Your task to perform on an android device: Add "asus zenbook" to the cart on amazon, then select checkout. Image 0: 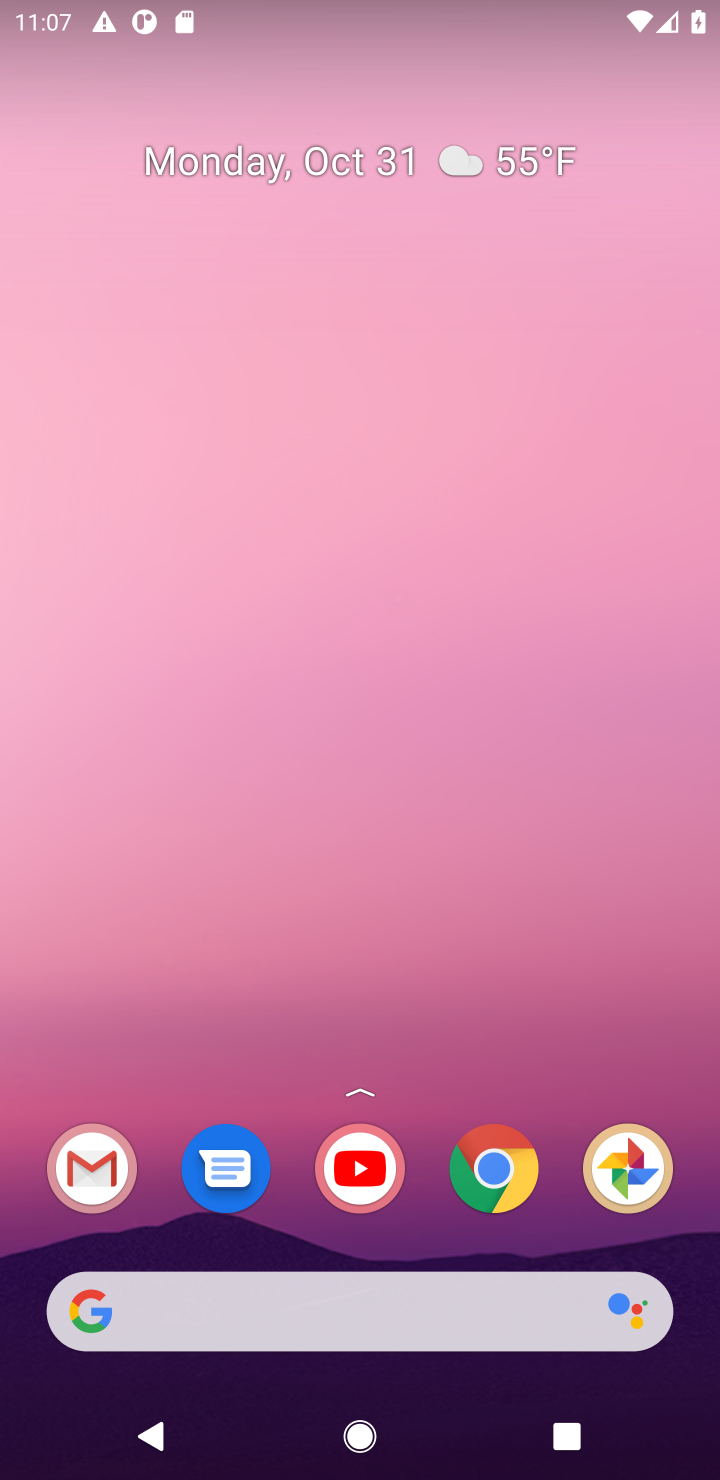
Step 0: click (477, 1171)
Your task to perform on an android device: Add "asus zenbook" to the cart on amazon, then select checkout. Image 1: 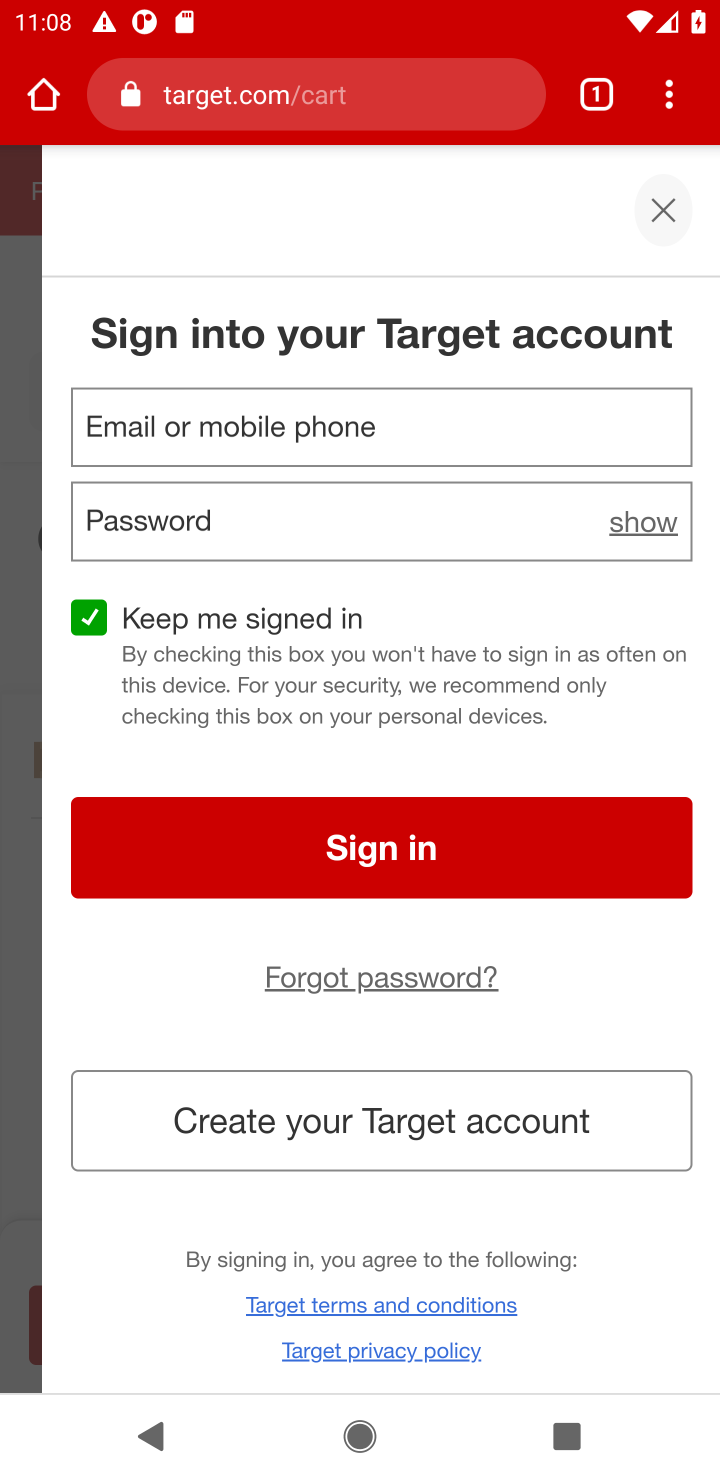
Step 1: click (298, 95)
Your task to perform on an android device: Add "asus zenbook" to the cart on amazon, then select checkout. Image 2: 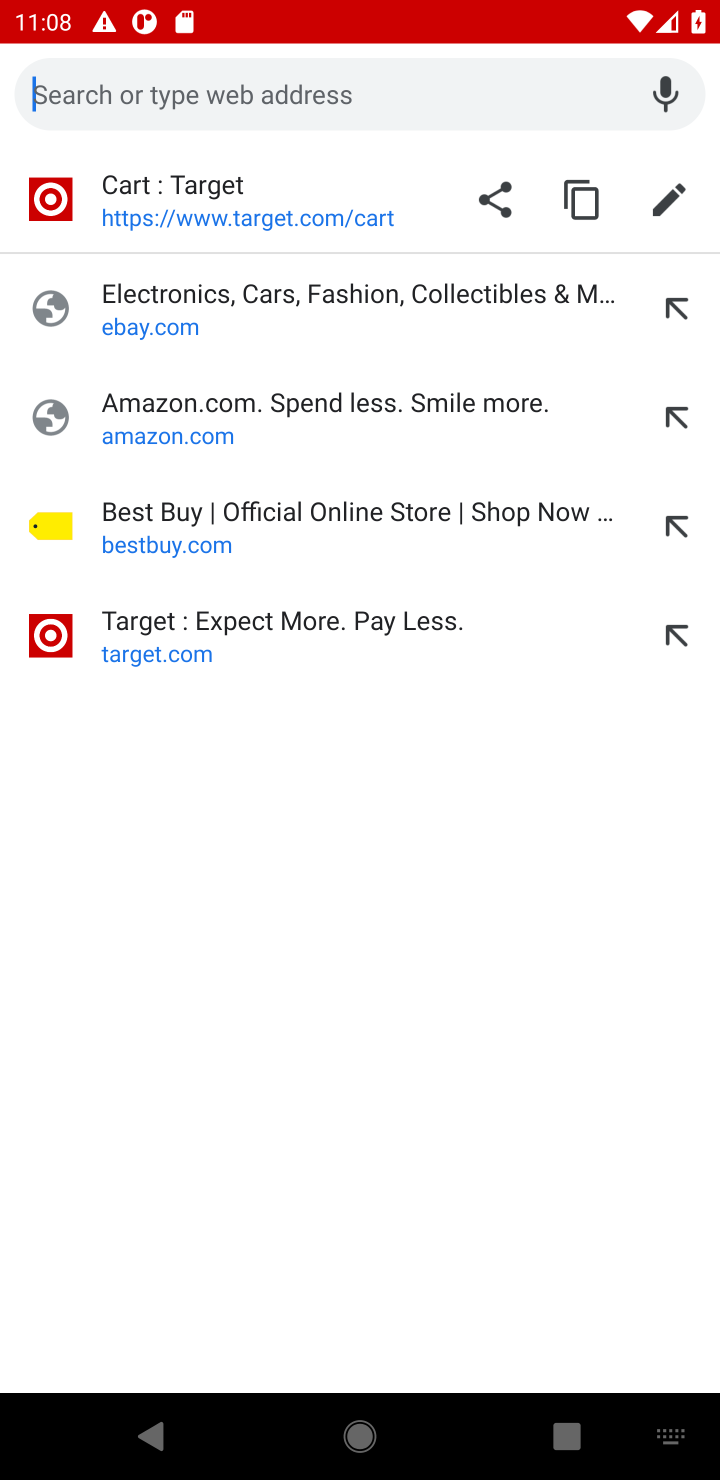
Step 2: type "amazon"
Your task to perform on an android device: Add "asus zenbook" to the cart on amazon, then select checkout. Image 3: 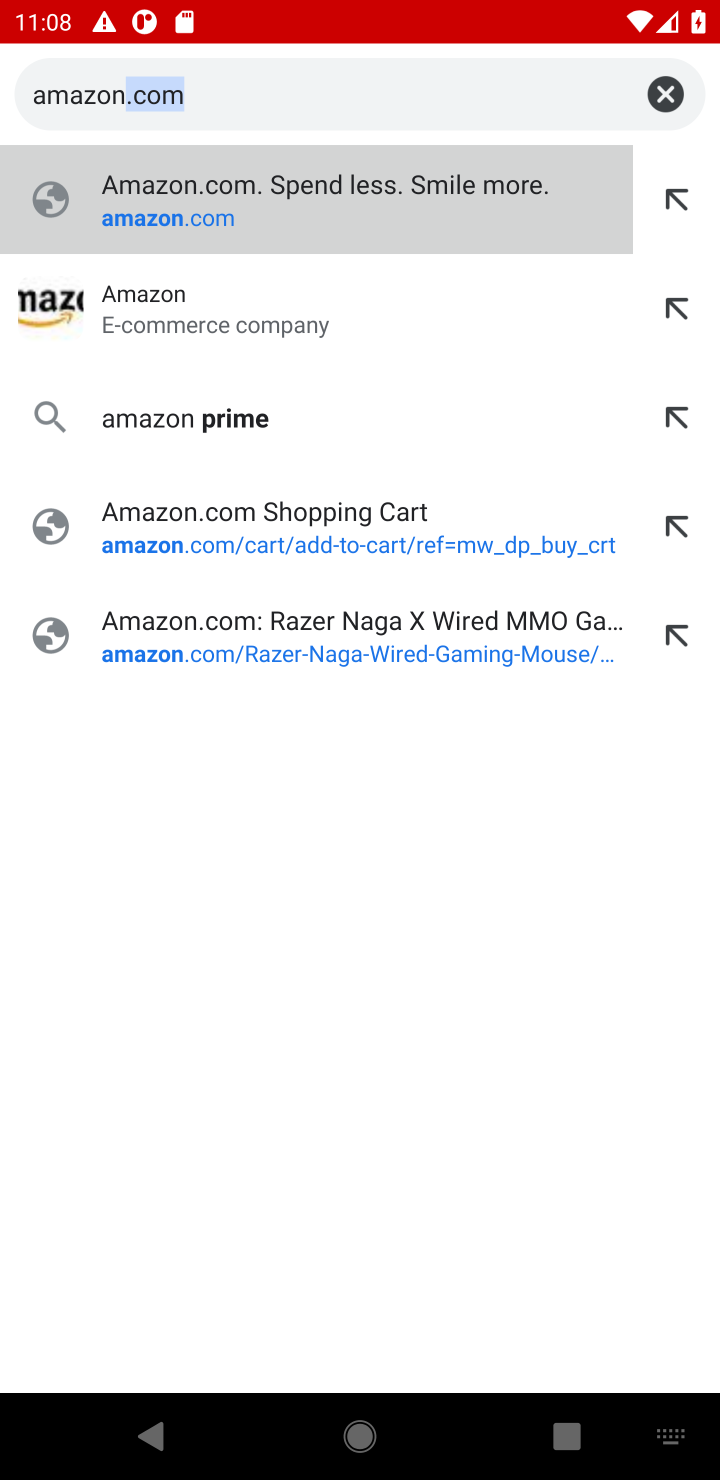
Step 3: press enter
Your task to perform on an android device: Add "asus zenbook" to the cart on amazon, then select checkout. Image 4: 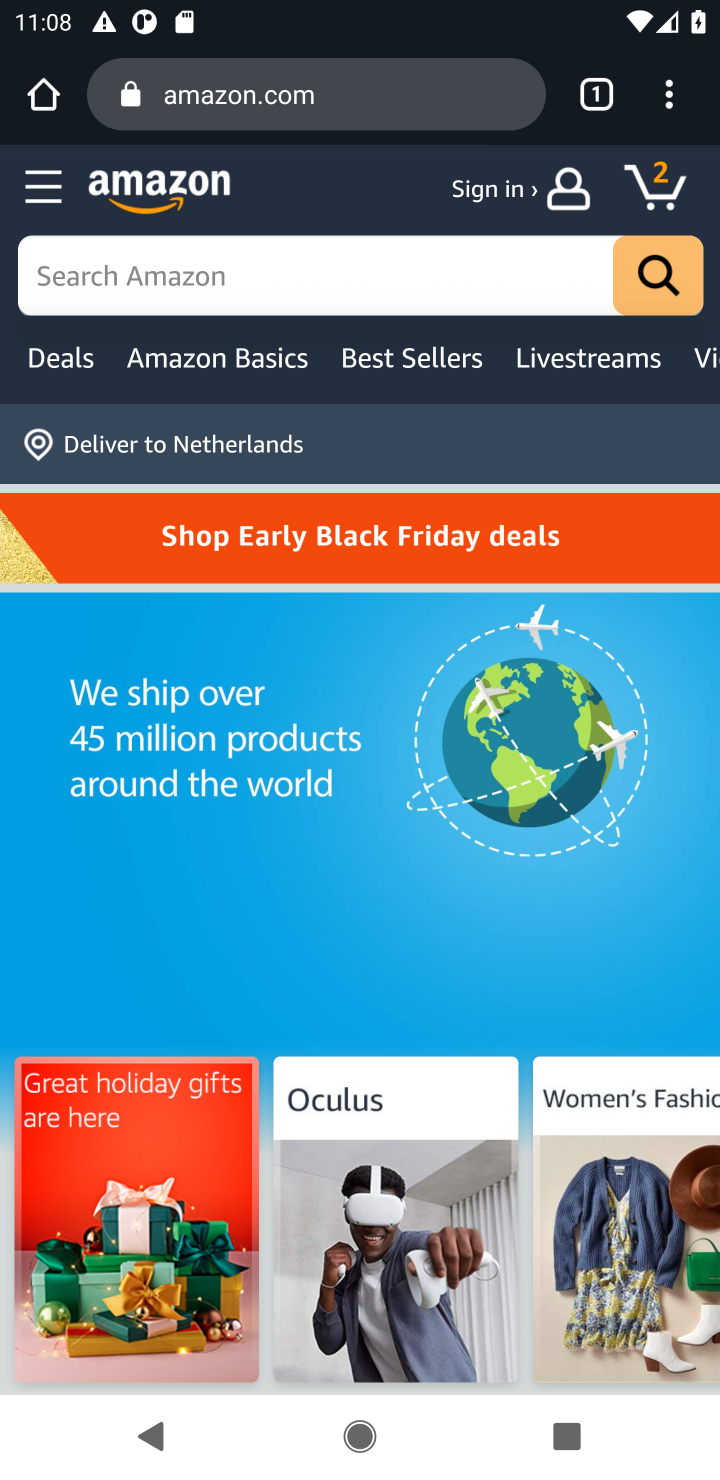
Step 4: click (203, 286)
Your task to perform on an android device: Add "asus zenbook" to the cart on amazon, then select checkout. Image 5: 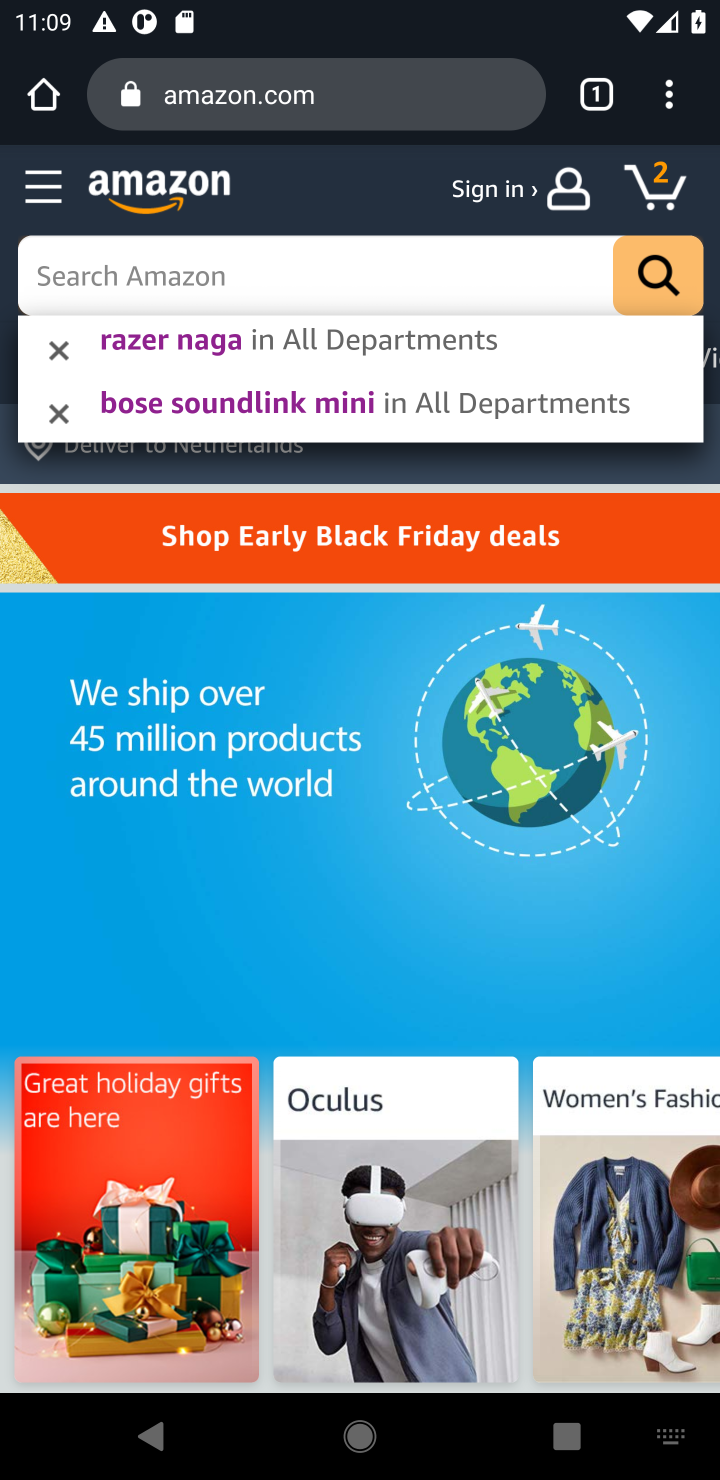
Step 5: type "asus zenbook"
Your task to perform on an android device: Add "asus zenbook" to the cart on amazon, then select checkout. Image 6: 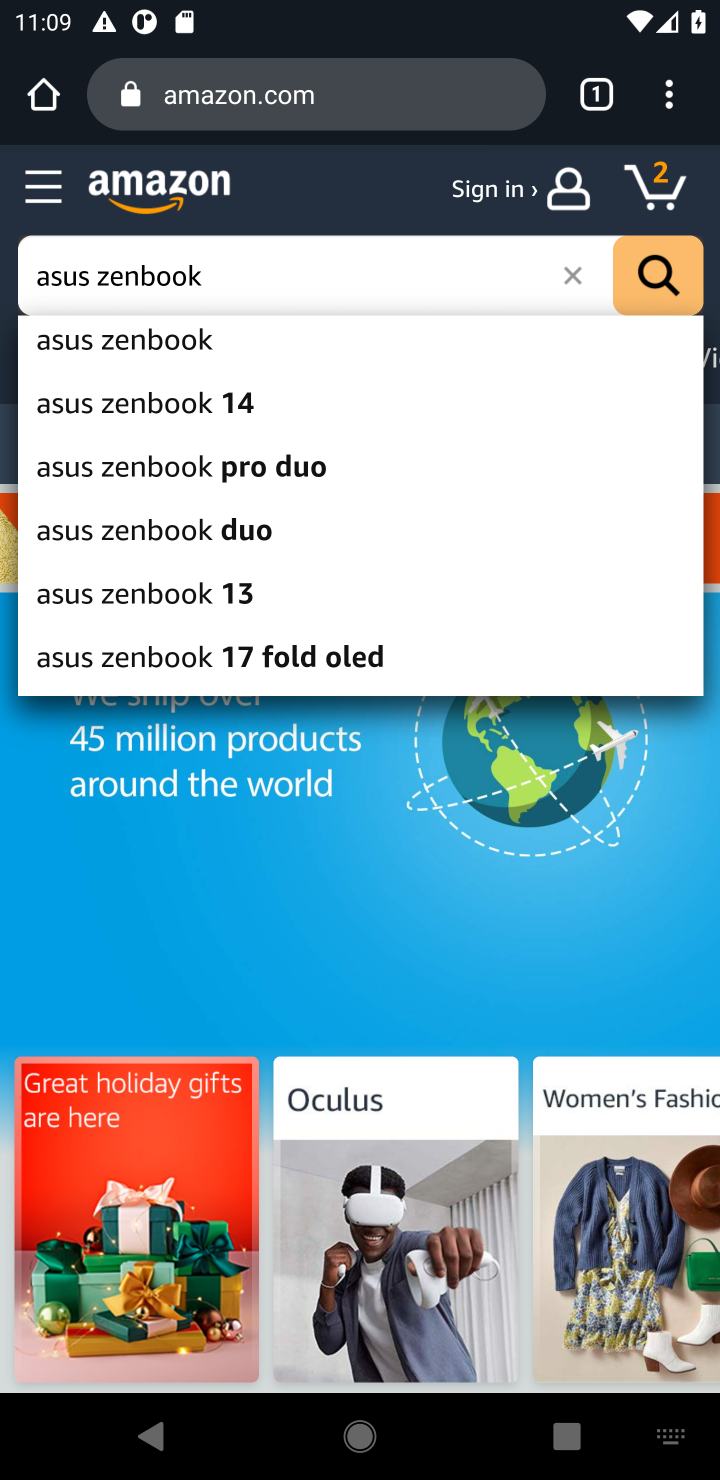
Step 6: click (101, 353)
Your task to perform on an android device: Add "asus zenbook" to the cart on amazon, then select checkout. Image 7: 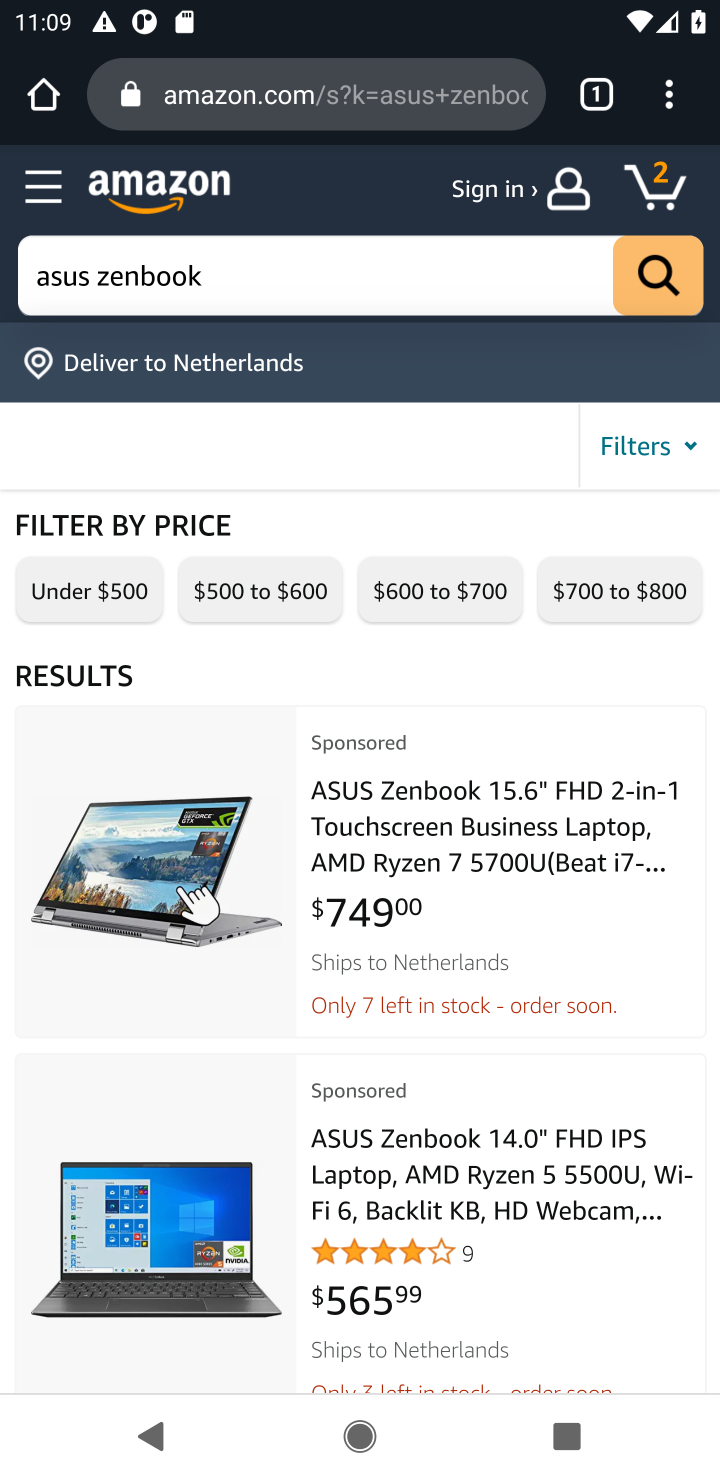
Step 7: drag from (559, 1039) to (536, 976)
Your task to perform on an android device: Add "asus zenbook" to the cart on amazon, then select checkout. Image 8: 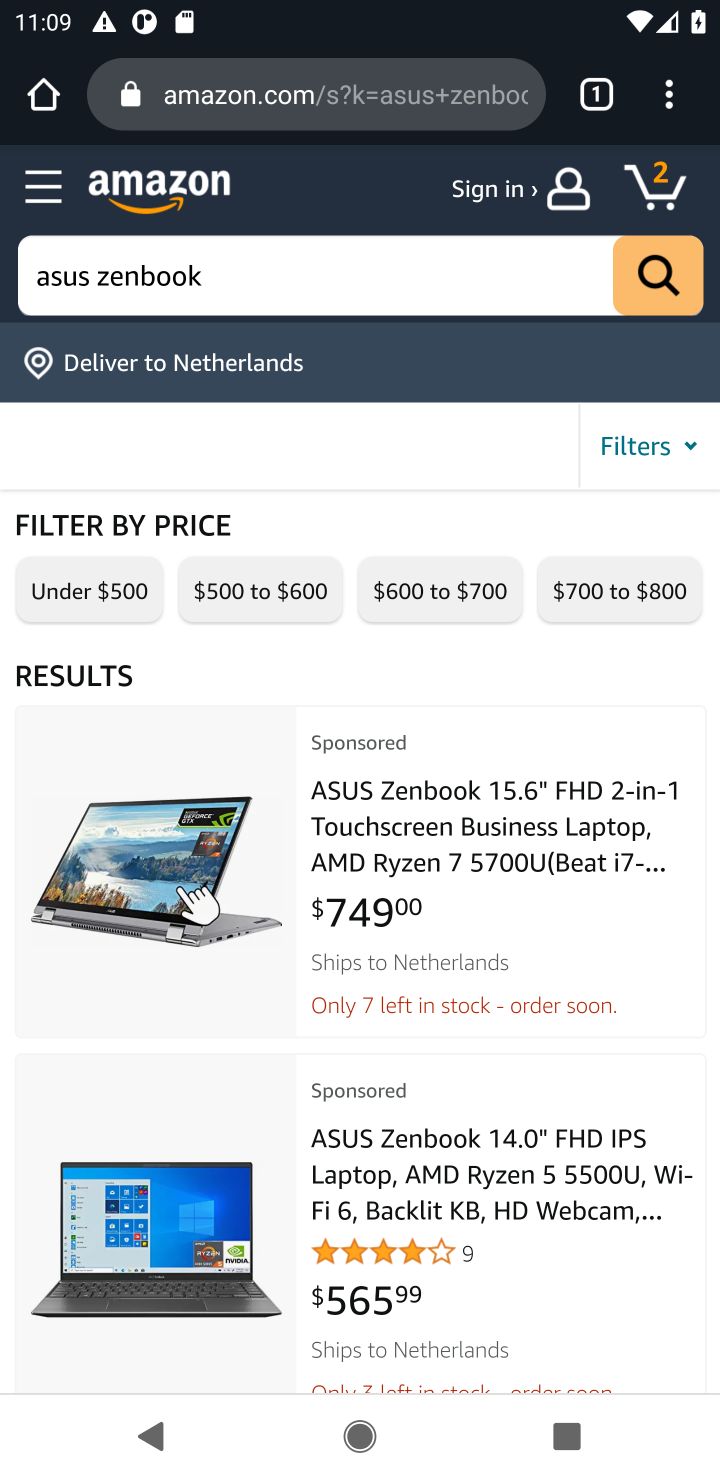
Step 8: click (384, 776)
Your task to perform on an android device: Add "asus zenbook" to the cart on amazon, then select checkout. Image 9: 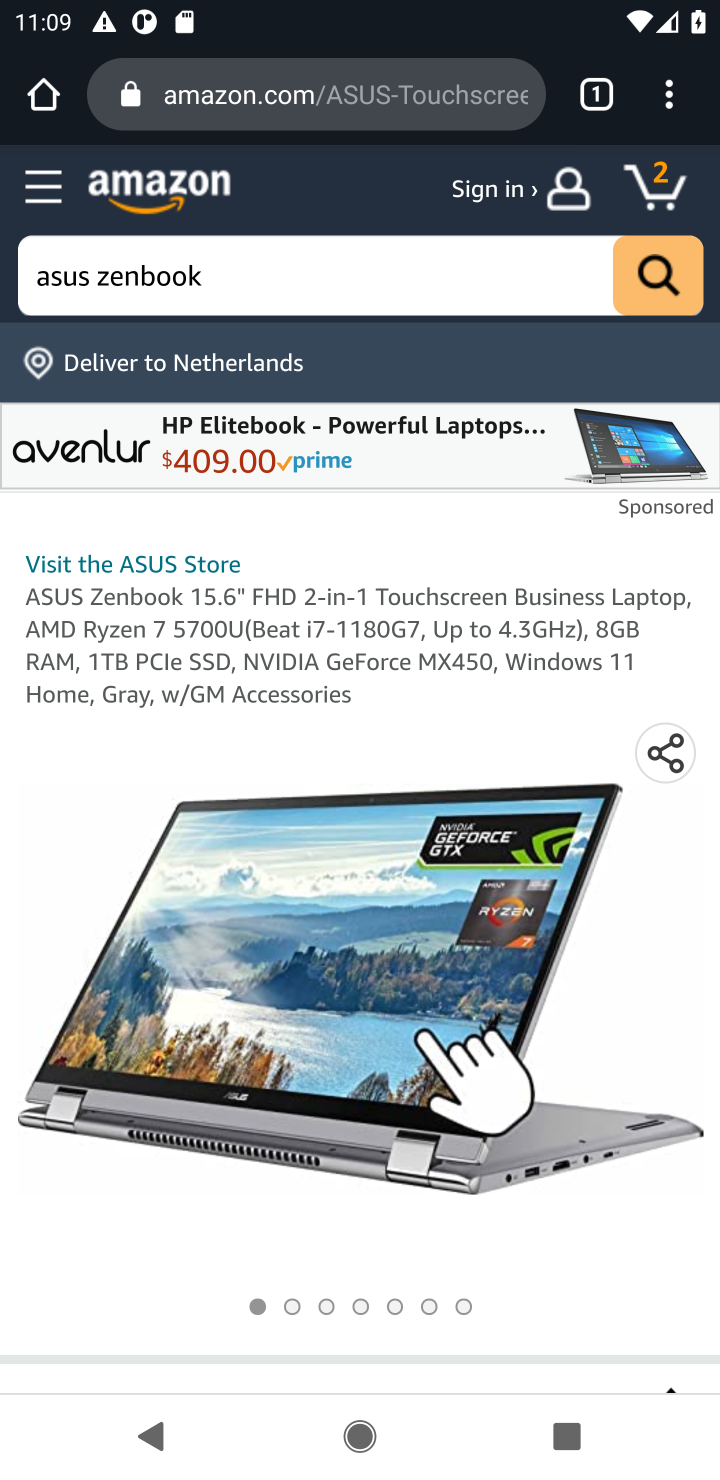
Step 9: drag from (599, 1240) to (495, 272)
Your task to perform on an android device: Add "asus zenbook" to the cart on amazon, then select checkout. Image 10: 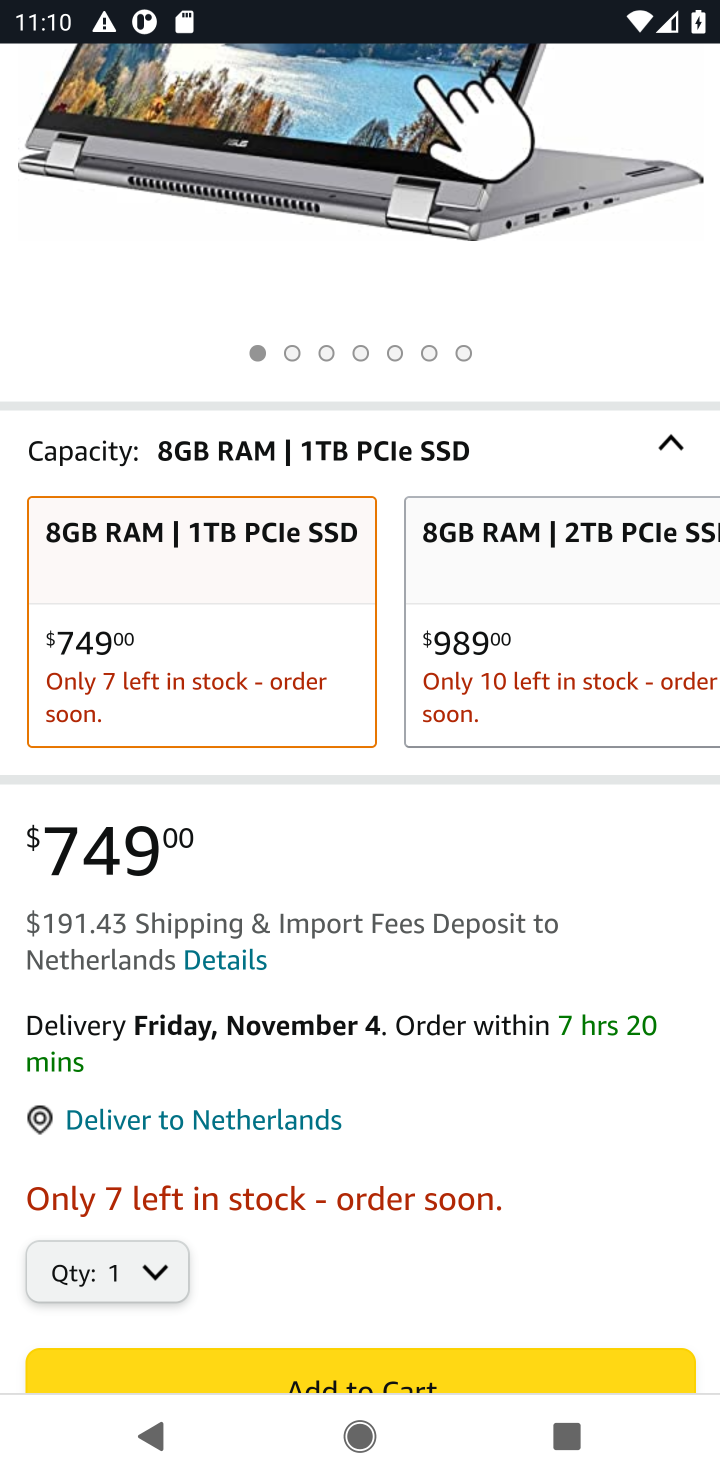
Step 10: drag from (429, 1119) to (413, 835)
Your task to perform on an android device: Add "asus zenbook" to the cart on amazon, then select checkout. Image 11: 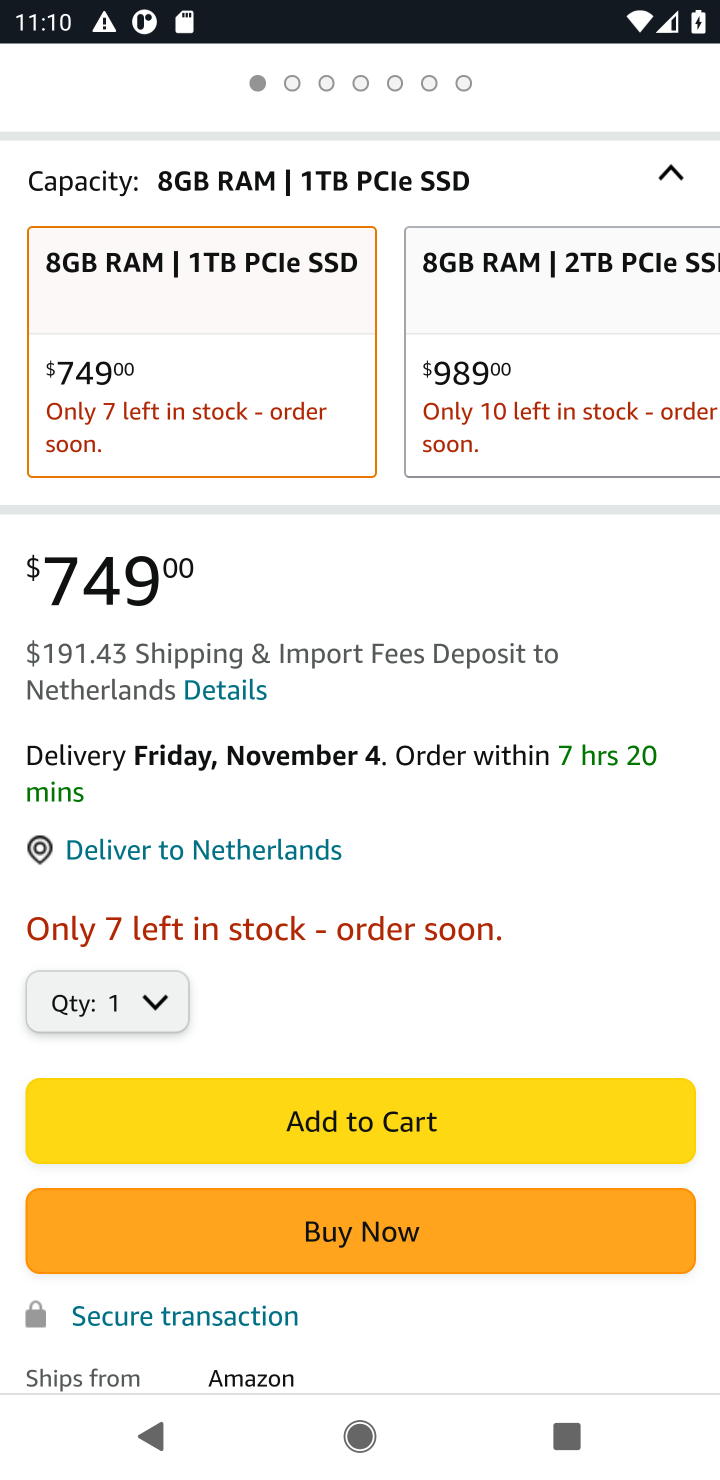
Step 11: click (314, 1117)
Your task to perform on an android device: Add "asus zenbook" to the cart on amazon, then select checkout. Image 12: 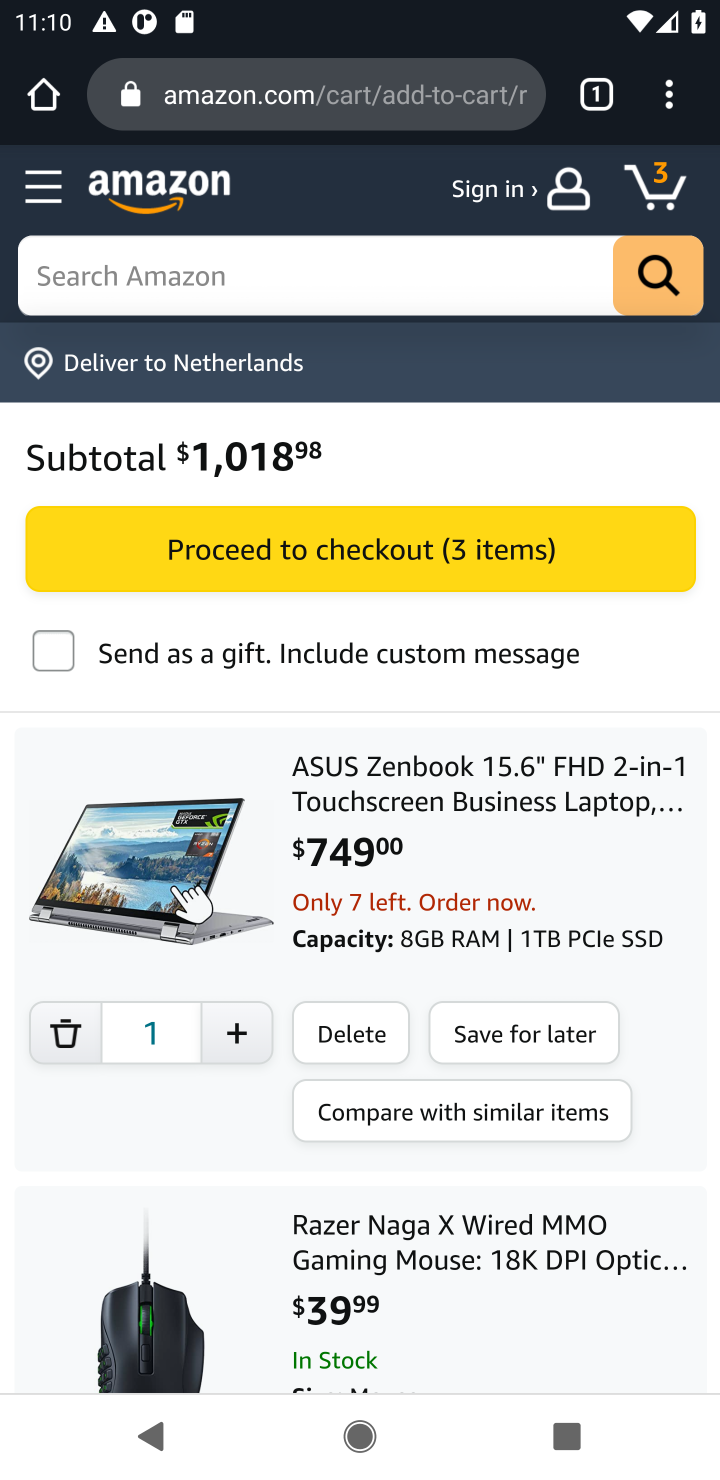
Step 12: click (382, 548)
Your task to perform on an android device: Add "asus zenbook" to the cart on amazon, then select checkout. Image 13: 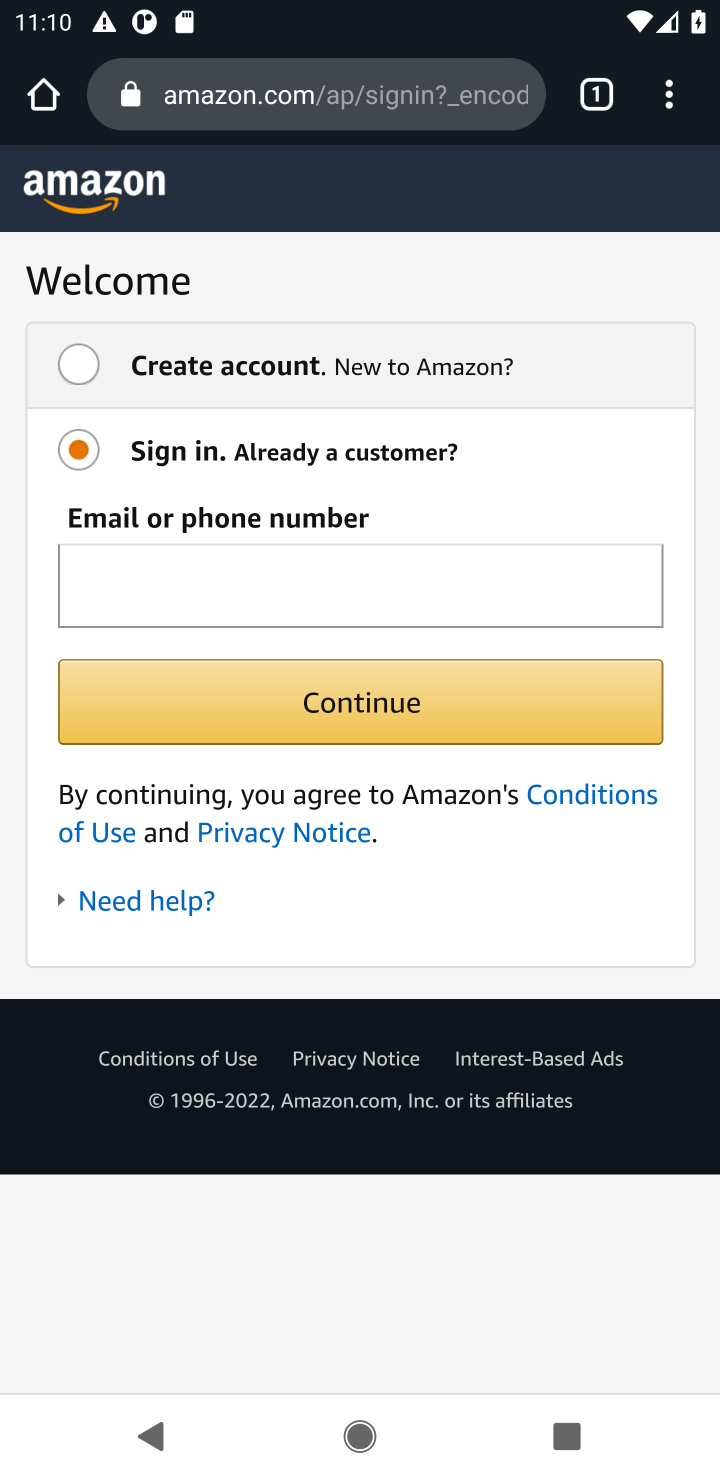
Step 13: task complete